Your task to perform on an android device: Go to Maps Image 0: 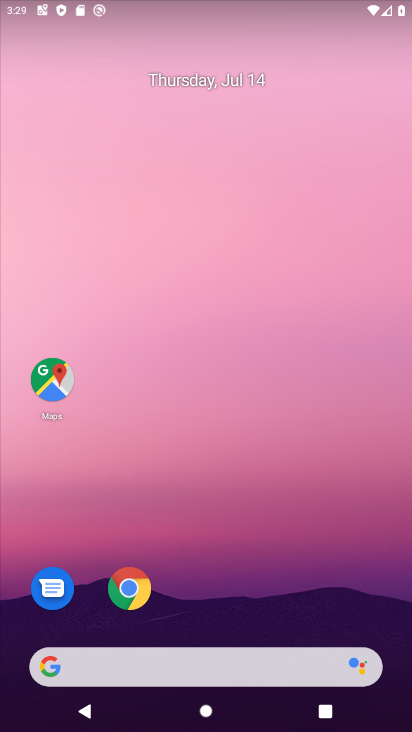
Step 0: drag from (304, 596) to (203, 36)
Your task to perform on an android device: Go to Maps Image 1: 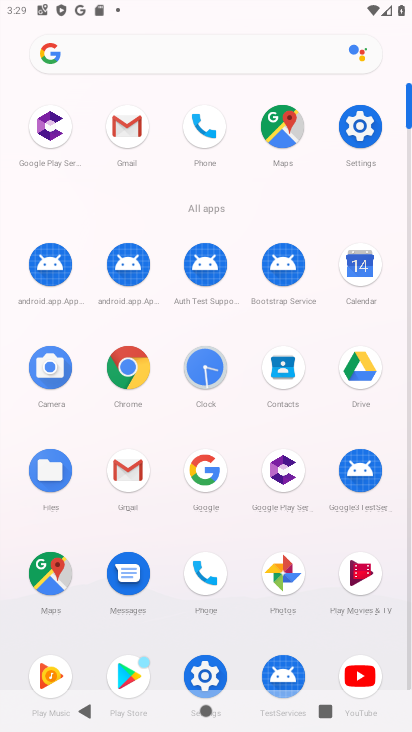
Step 1: click (49, 574)
Your task to perform on an android device: Go to Maps Image 2: 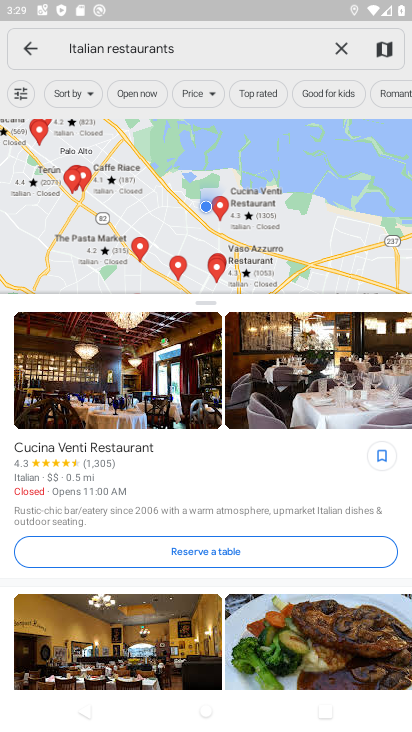
Step 2: task complete